Your task to perform on an android device: toggle data saver in the chrome app Image 0: 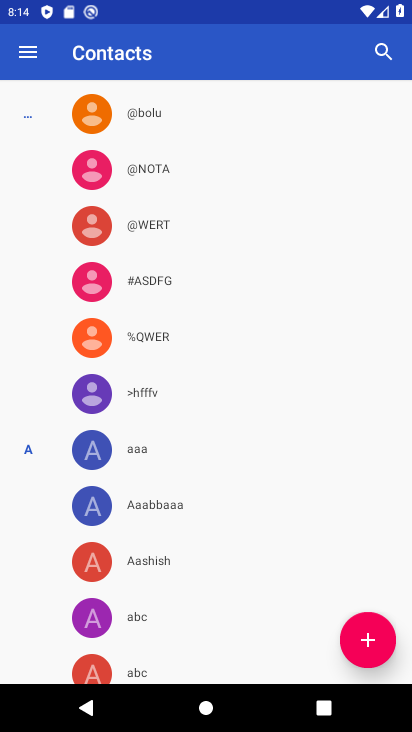
Step 0: press home button
Your task to perform on an android device: toggle data saver in the chrome app Image 1: 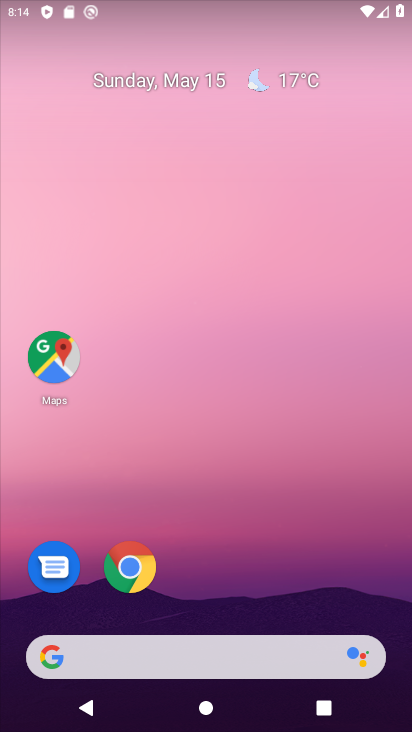
Step 1: drag from (234, 651) to (187, 84)
Your task to perform on an android device: toggle data saver in the chrome app Image 2: 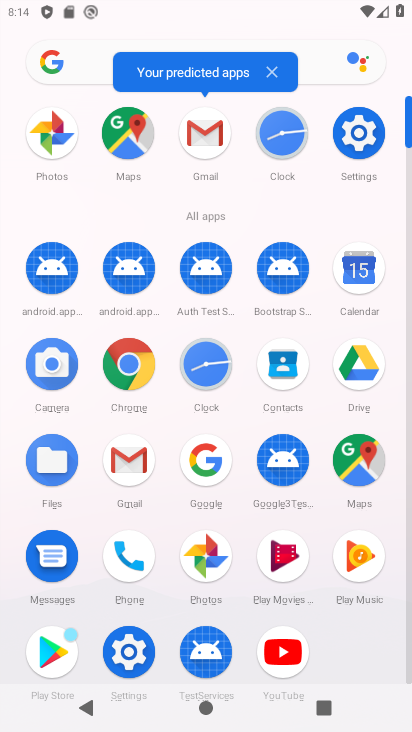
Step 2: click (143, 356)
Your task to perform on an android device: toggle data saver in the chrome app Image 3: 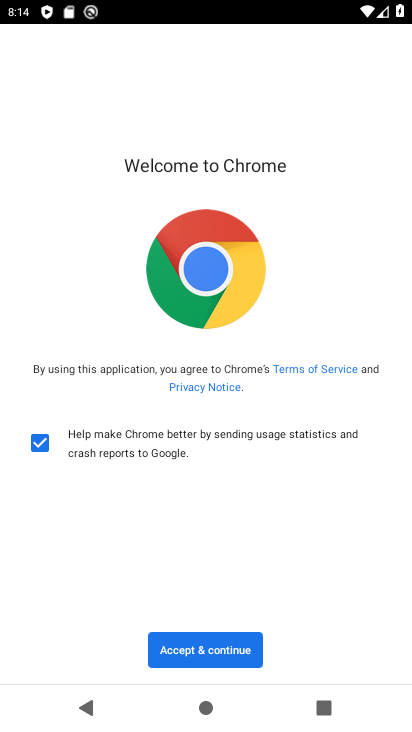
Step 3: click (203, 640)
Your task to perform on an android device: toggle data saver in the chrome app Image 4: 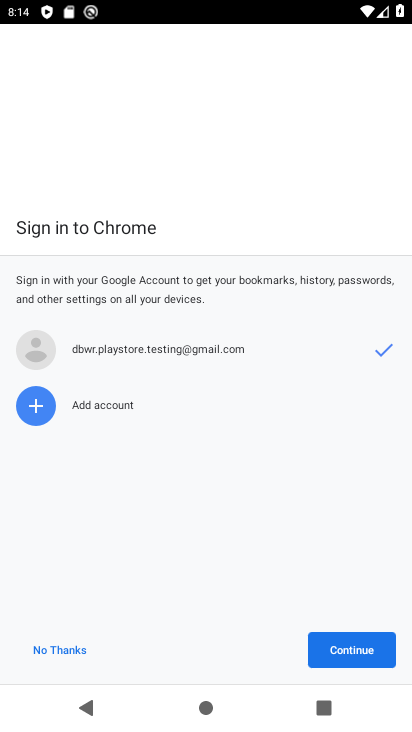
Step 4: click (362, 647)
Your task to perform on an android device: toggle data saver in the chrome app Image 5: 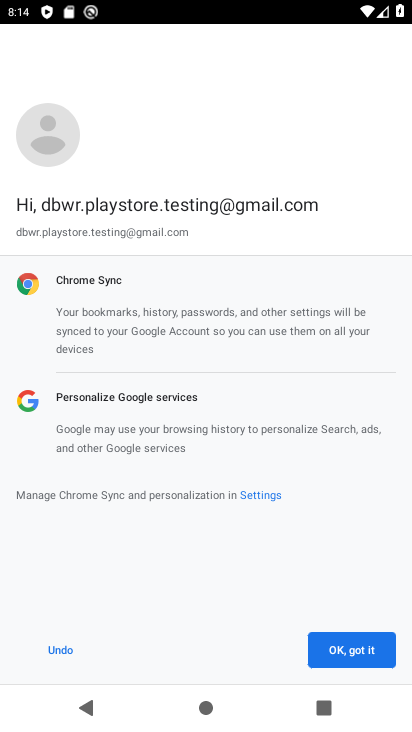
Step 5: click (369, 656)
Your task to perform on an android device: toggle data saver in the chrome app Image 6: 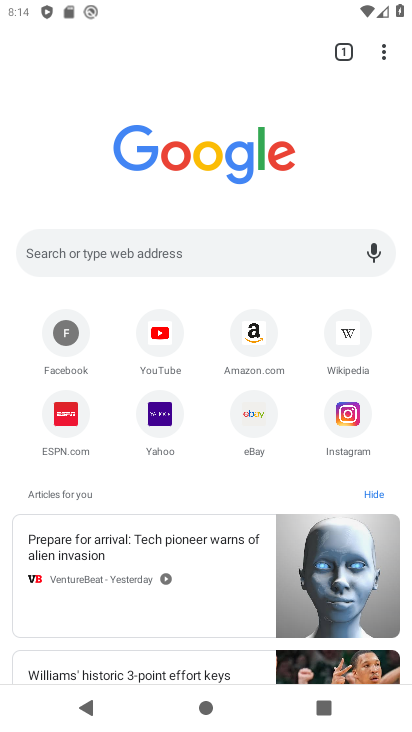
Step 6: drag from (379, 59) to (203, 441)
Your task to perform on an android device: toggle data saver in the chrome app Image 7: 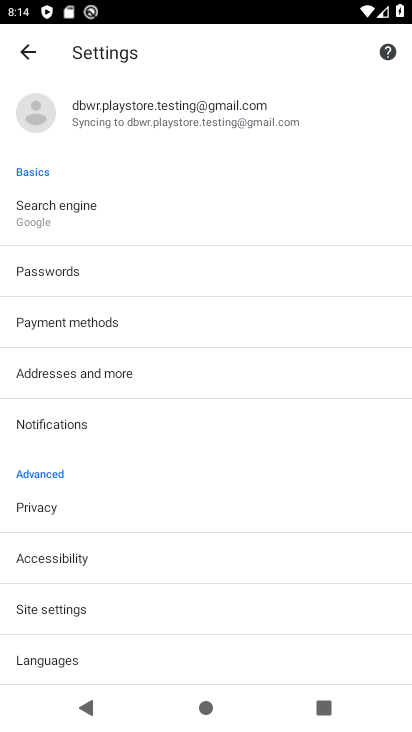
Step 7: drag from (92, 620) to (62, 152)
Your task to perform on an android device: toggle data saver in the chrome app Image 8: 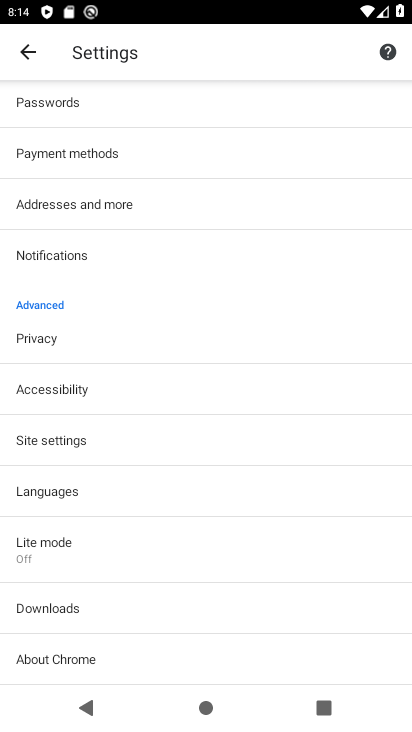
Step 8: click (106, 552)
Your task to perform on an android device: toggle data saver in the chrome app Image 9: 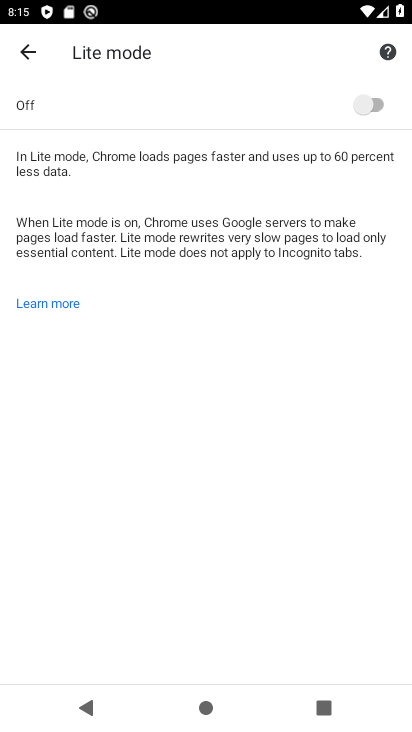
Step 9: click (373, 112)
Your task to perform on an android device: toggle data saver in the chrome app Image 10: 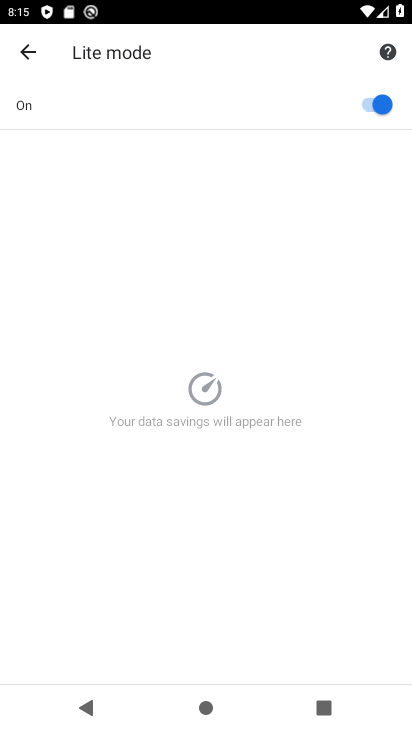
Step 10: task complete